Your task to perform on an android device: open chrome privacy settings Image 0: 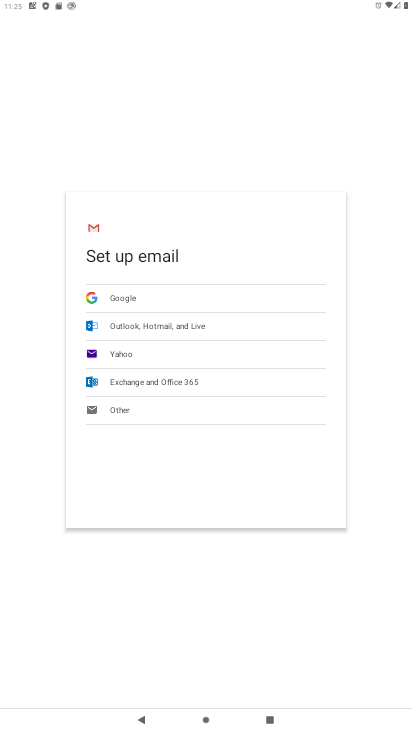
Step 0: press home button
Your task to perform on an android device: open chrome privacy settings Image 1: 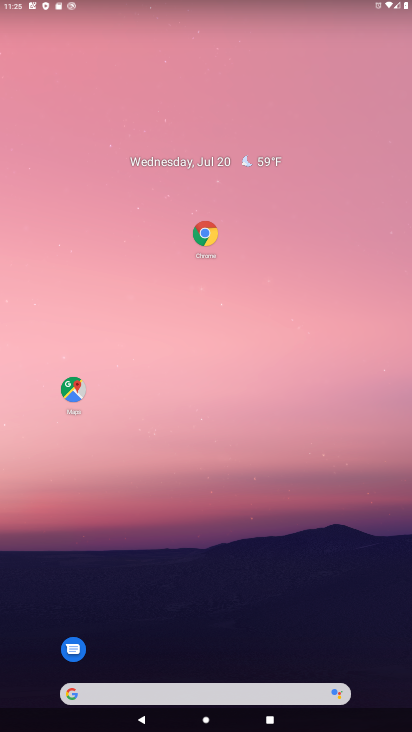
Step 1: click (207, 237)
Your task to perform on an android device: open chrome privacy settings Image 2: 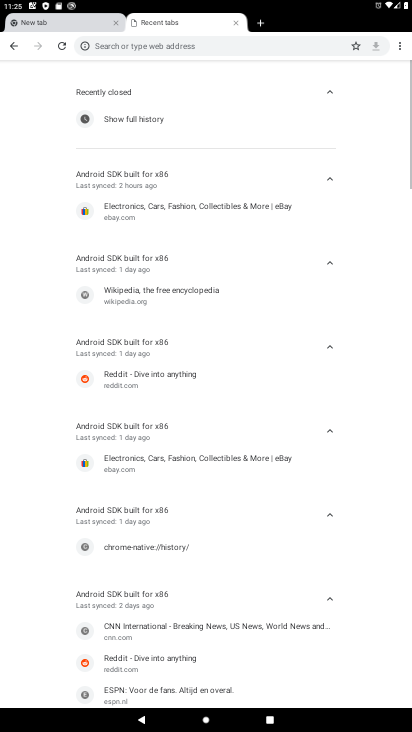
Step 2: click (396, 49)
Your task to perform on an android device: open chrome privacy settings Image 3: 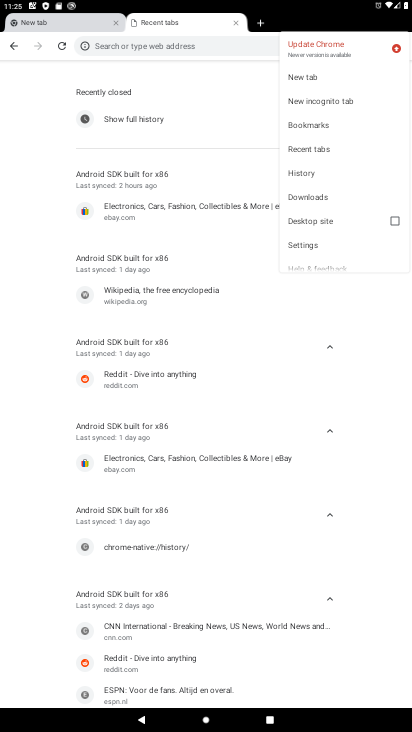
Step 3: click (306, 241)
Your task to perform on an android device: open chrome privacy settings Image 4: 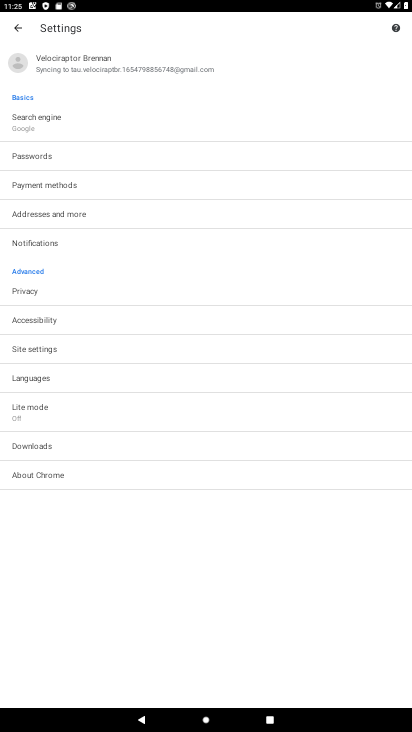
Step 4: click (31, 293)
Your task to perform on an android device: open chrome privacy settings Image 5: 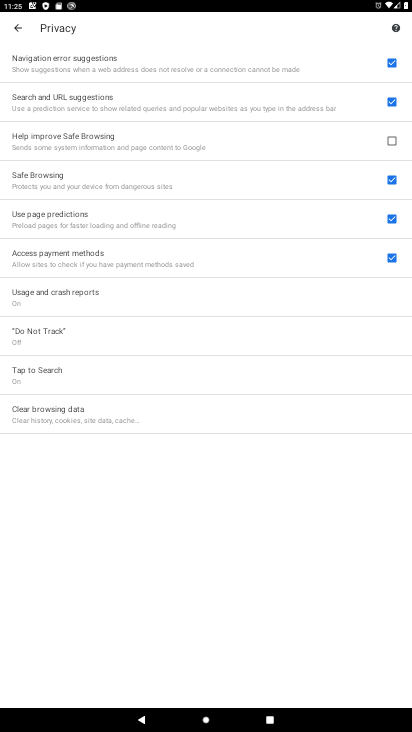
Step 5: task complete